Your task to perform on an android device: Find coffee shops on Maps Image 0: 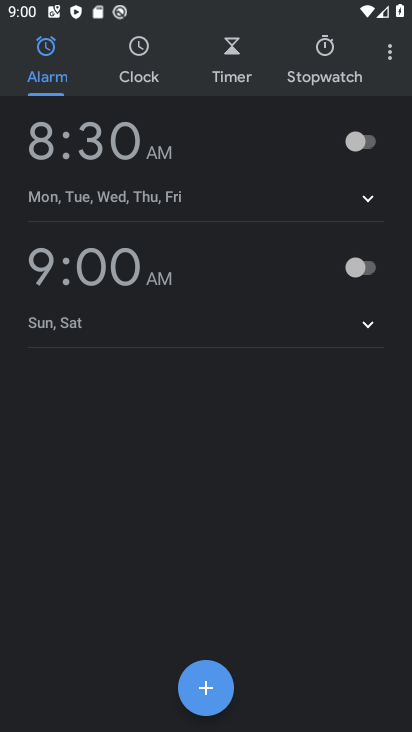
Step 0: press home button
Your task to perform on an android device: Find coffee shops on Maps Image 1: 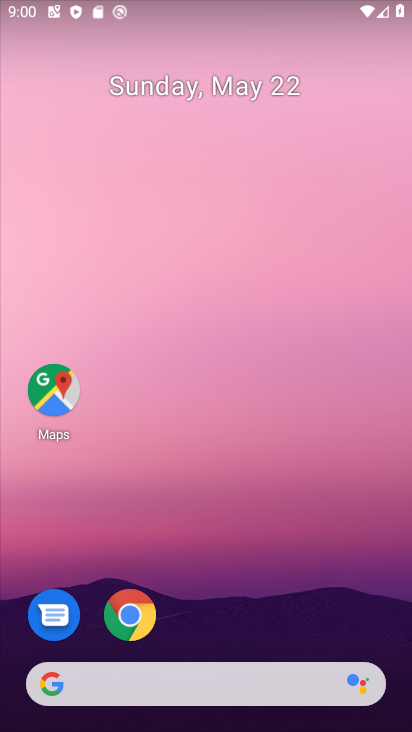
Step 1: click (48, 390)
Your task to perform on an android device: Find coffee shops on Maps Image 2: 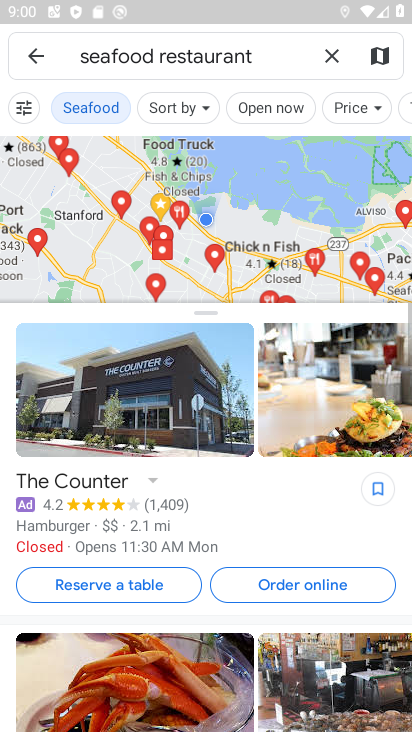
Step 2: click (323, 62)
Your task to perform on an android device: Find coffee shops on Maps Image 3: 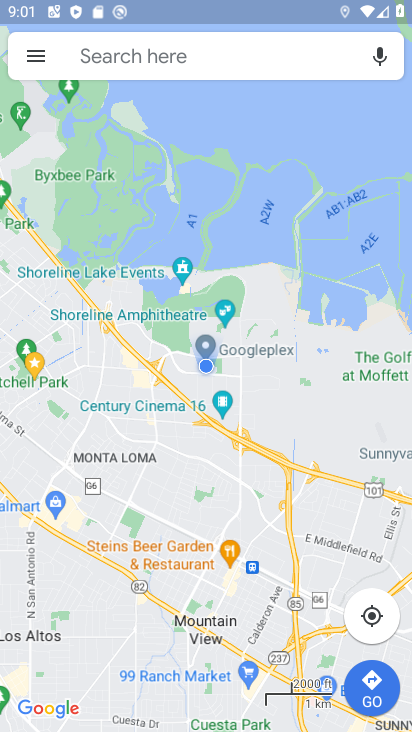
Step 3: click (198, 50)
Your task to perform on an android device: Find coffee shops on Maps Image 4: 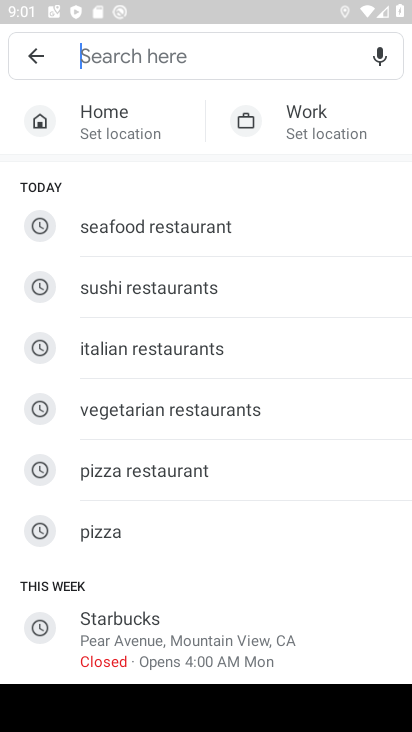
Step 4: click (235, 56)
Your task to perform on an android device: Find coffee shops on Maps Image 5: 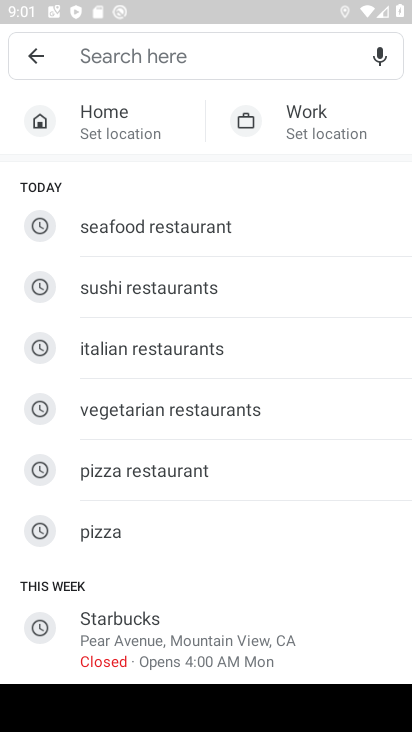
Step 5: type " coffee shops "
Your task to perform on an android device: Find coffee shops on Maps Image 6: 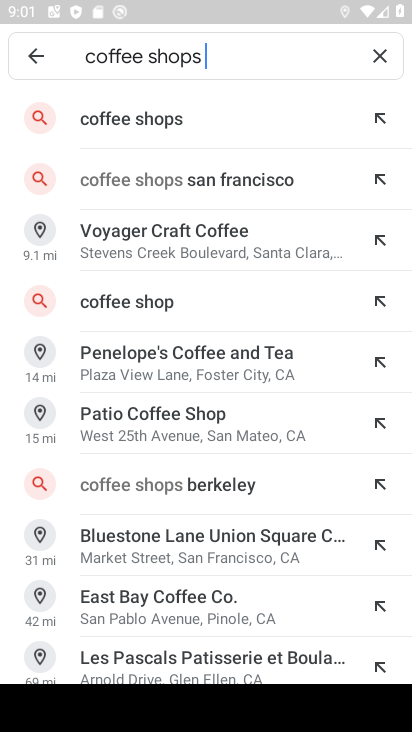
Step 6: click (137, 126)
Your task to perform on an android device: Find coffee shops on Maps Image 7: 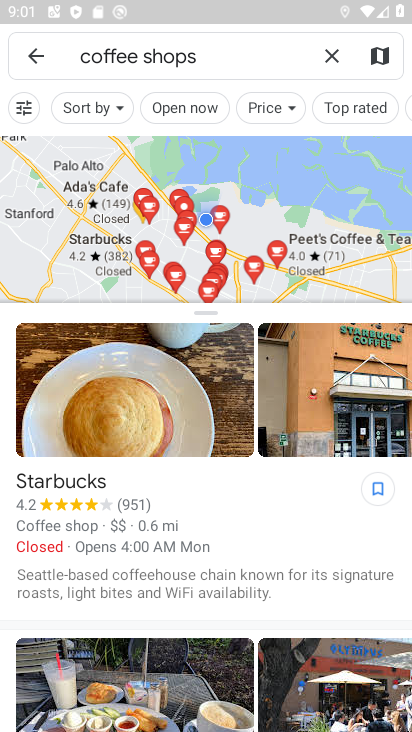
Step 7: task complete